Your task to perform on an android device: show emergency info Image 0: 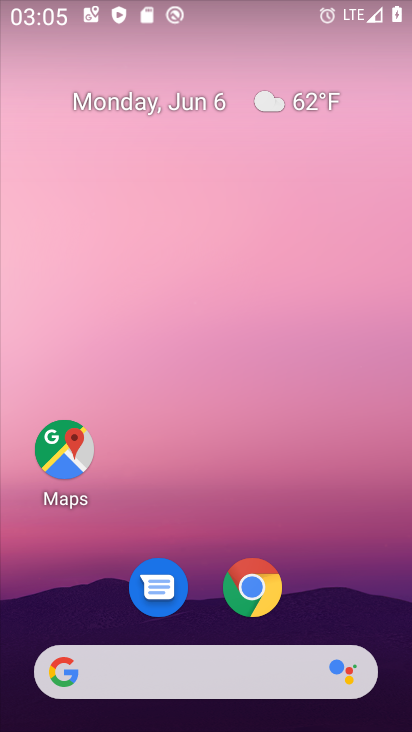
Step 0: drag from (312, 561) to (290, 14)
Your task to perform on an android device: show emergency info Image 1: 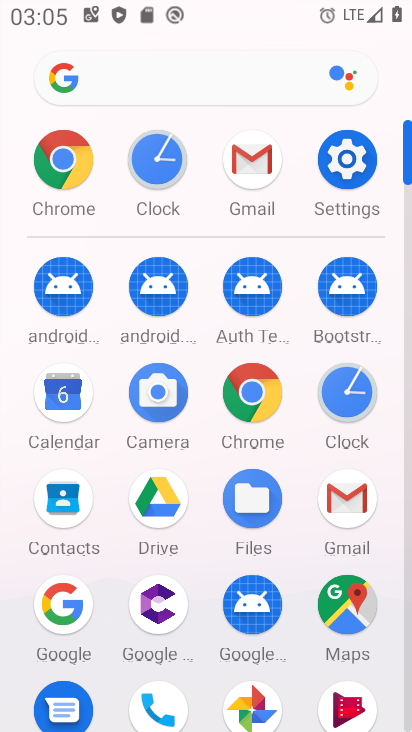
Step 1: drag from (6, 624) to (23, 304)
Your task to perform on an android device: show emergency info Image 2: 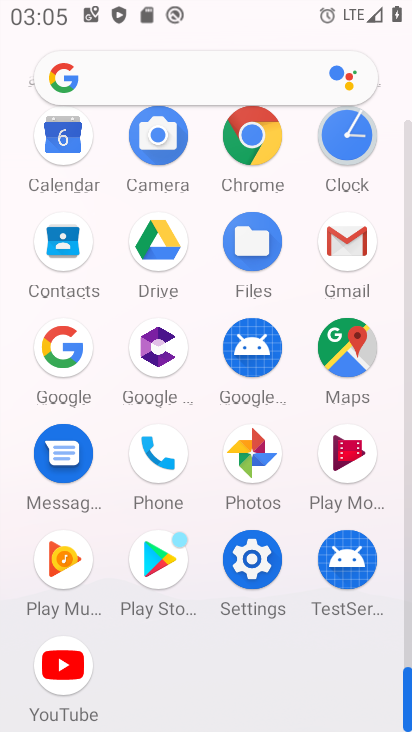
Step 2: click (251, 554)
Your task to perform on an android device: show emergency info Image 3: 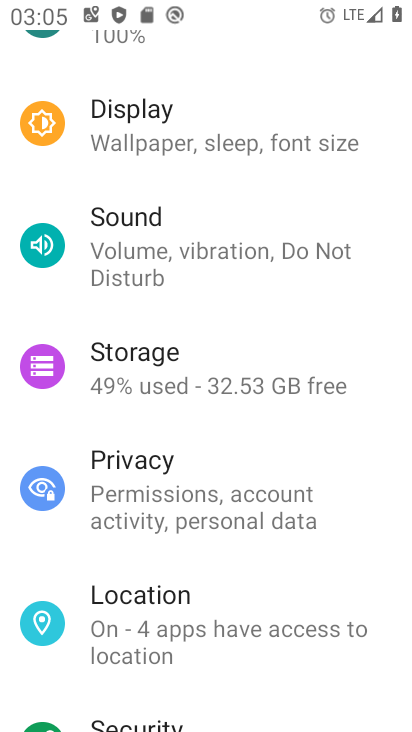
Step 3: drag from (259, 587) to (259, 235)
Your task to perform on an android device: show emergency info Image 4: 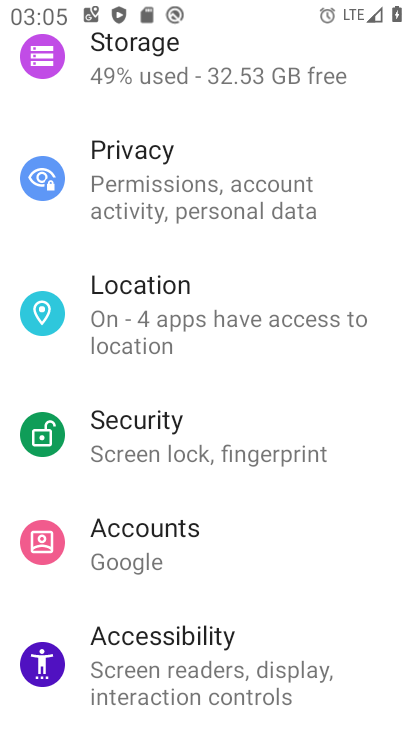
Step 4: click (196, 287)
Your task to perform on an android device: show emergency info Image 5: 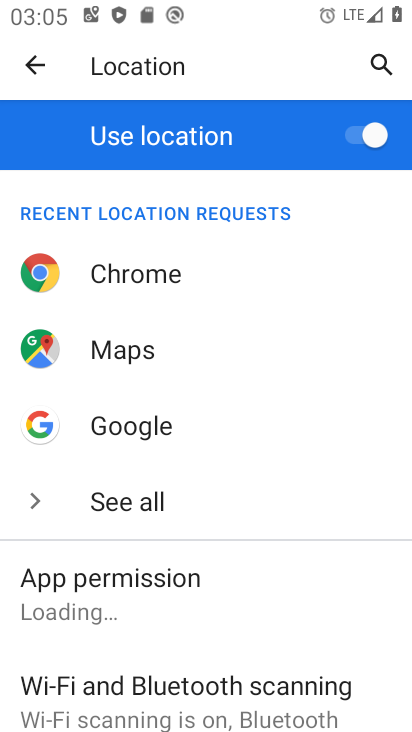
Step 5: drag from (247, 592) to (273, 230)
Your task to perform on an android device: show emergency info Image 6: 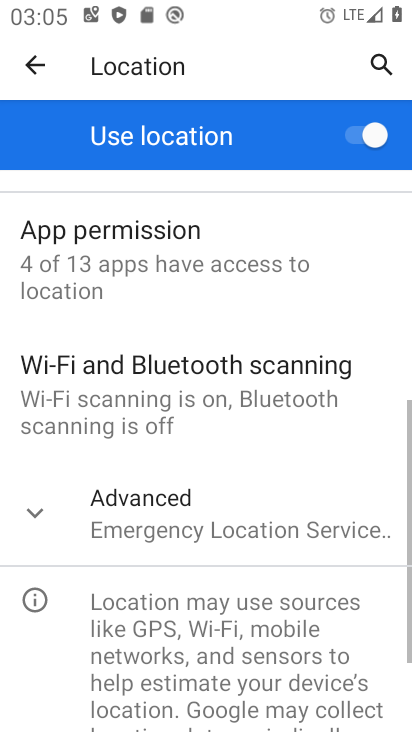
Step 6: click (52, 502)
Your task to perform on an android device: show emergency info Image 7: 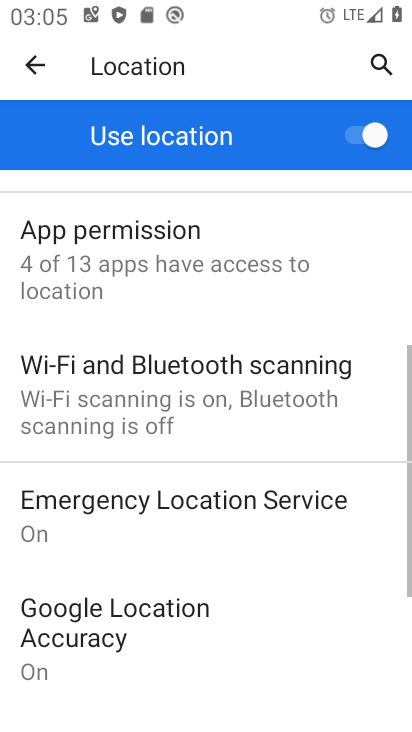
Step 7: drag from (300, 638) to (295, 240)
Your task to perform on an android device: show emergency info Image 8: 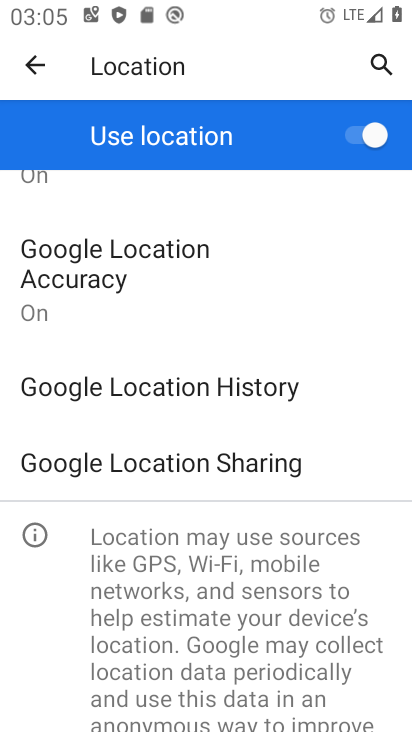
Step 8: drag from (297, 321) to (302, 613)
Your task to perform on an android device: show emergency info Image 9: 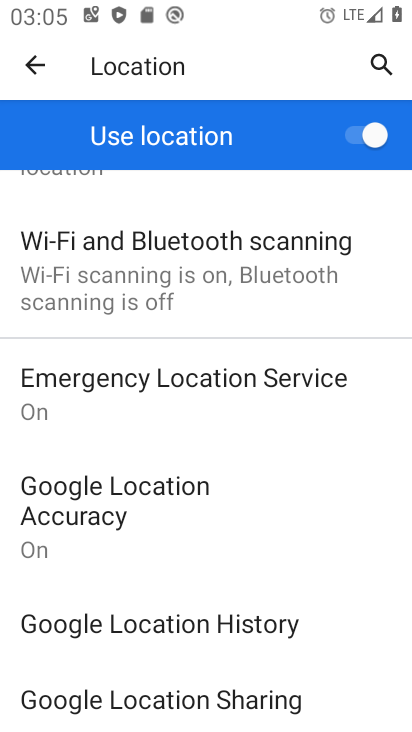
Step 9: drag from (292, 424) to (282, 214)
Your task to perform on an android device: show emergency info Image 10: 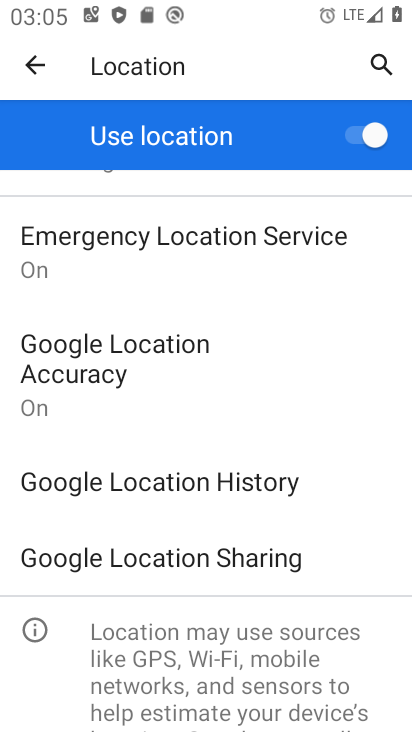
Step 10: click (32, 52)
Your task to perform on an android device: show emergency info Image 11: 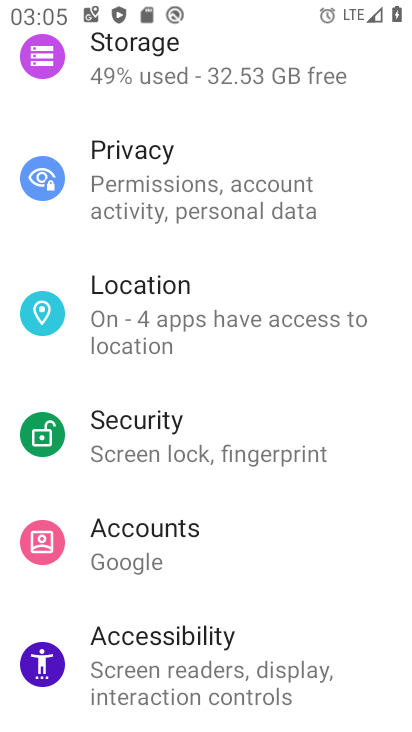
Step 11: drag from (266, 537) to (272, 112)
Your task to perform on an android device: show emergency info Image 12: 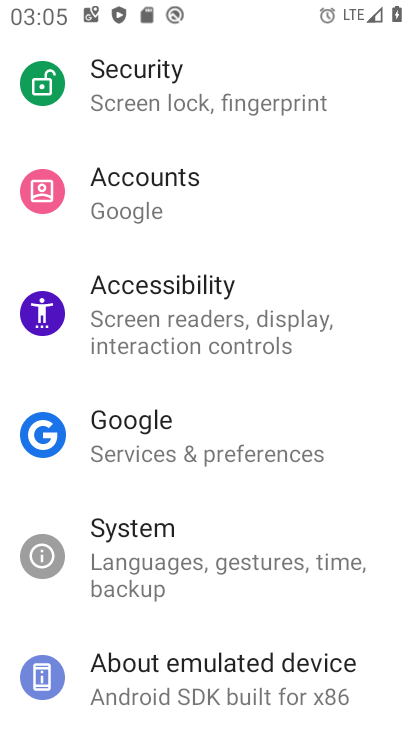
Step 12: click (293, 649)
Your task to perform on an android device: show emergency info Image 13: 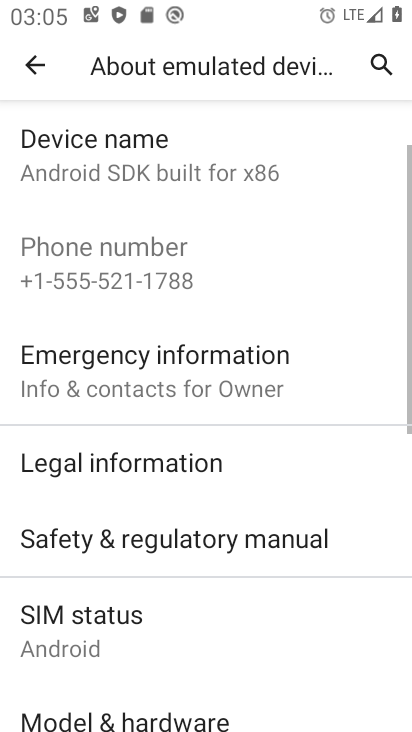
Step 13: task complete